Your task to perform on an android device: turn on data saver in the chrome app Image 0: 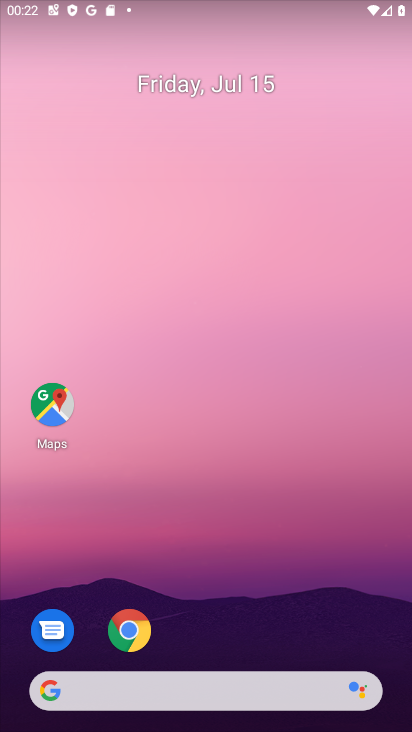
Step 0: click (154, 626)
Your task to perform on an android device: turn on data saver in the chrome app Image 1: 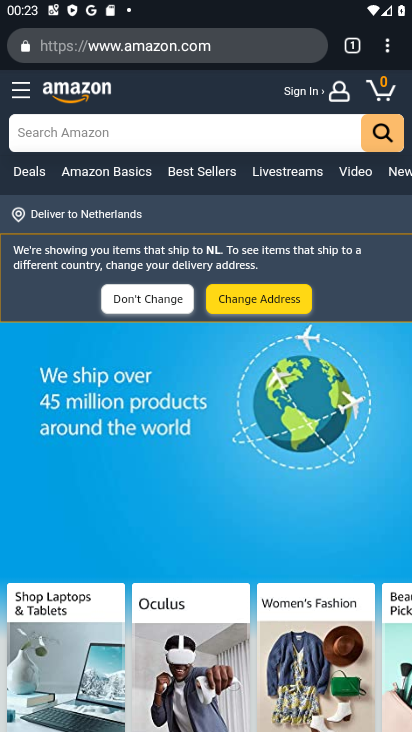
Step 1: click (389, 43)
Your task to perform on an android device: turn on data saver in the chrome app Image 2: 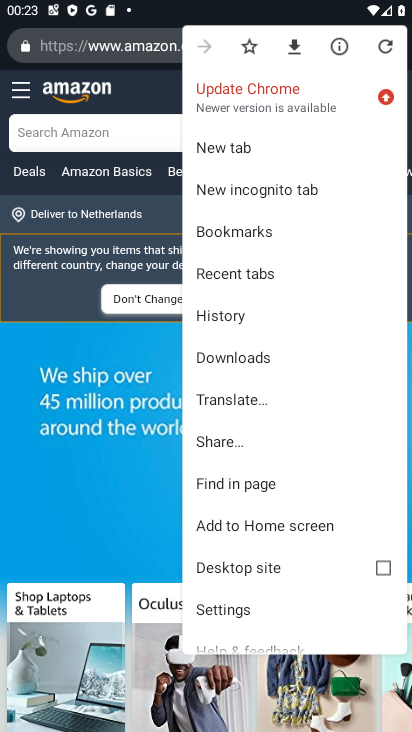
Step 2: click (250, 618)
Your task to perform on an android device: turn on data saver in the chrome app Image 3: 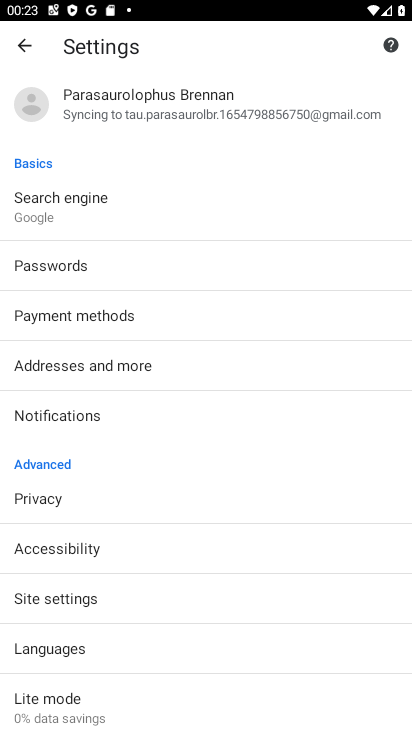
Step 3: click (179, 691)
Your task to perform on an android device: turn on data saver in the chrome app Image 4: 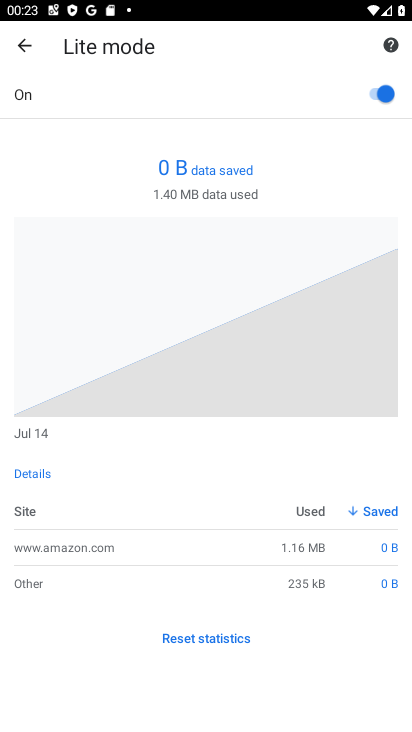
Step 4: click (346, 113)
Your task to perform on an android device: turn on data saver in the chrome app Image 5: 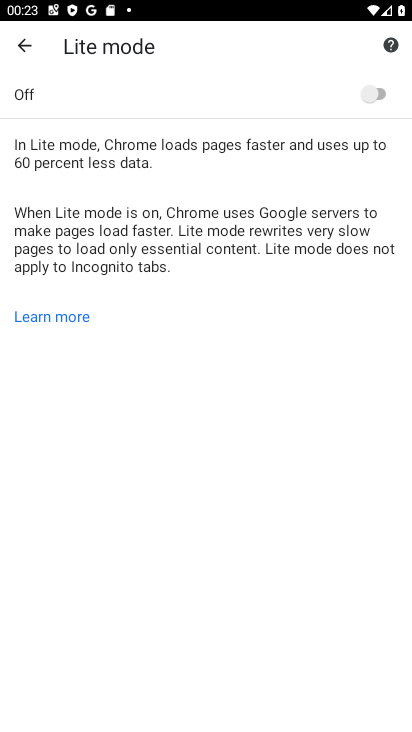
Step 5: task complete